Your task to perform on an android device: empty trash in the gmail app Image 0: 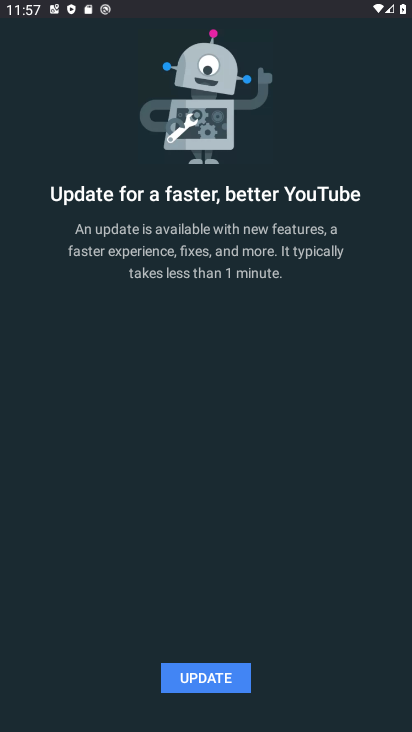
Step 0: press home button
Your task to perform on an android device: empty trash in the gmail app Image 1: 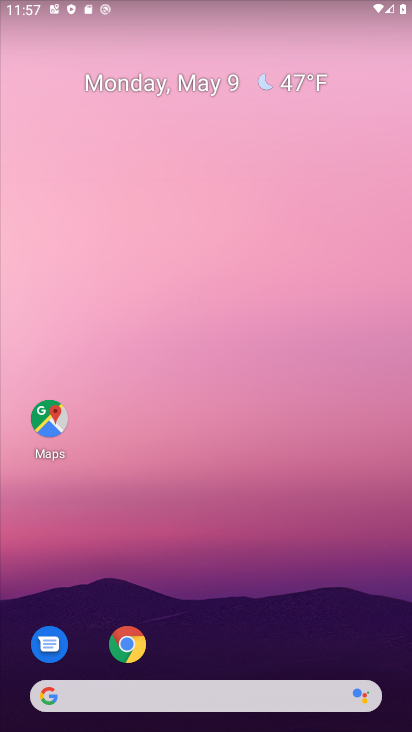
Step 1: drag from (42, 614) to (252, 216)
Your task to perform on an android device: empty trash in the gmail app Image 2: 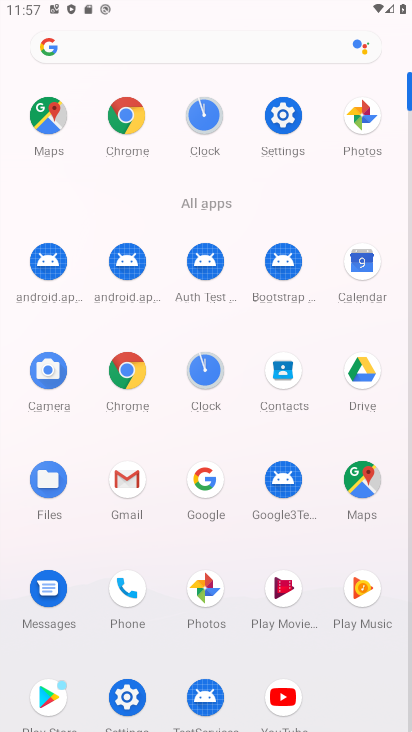
Step 2: click (151, 484)
Your task to perform on an android device: empty trash in the gmail app Image 3: 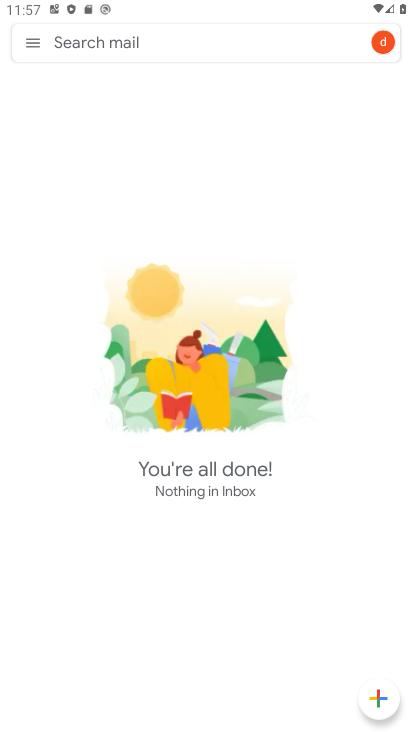
Step 3: click (43, 45)
Your task to perform on an android device: empty trash in the gmail app Image 4: 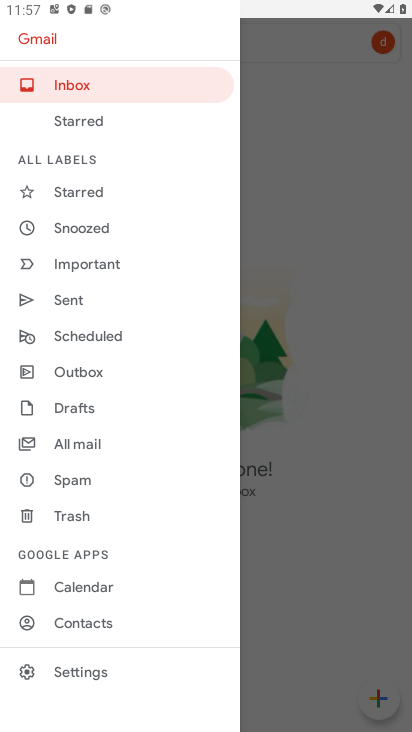
Step 4: click (69, 519)
Your task to perform on an android device: empty trash in the gmail app Image 5: 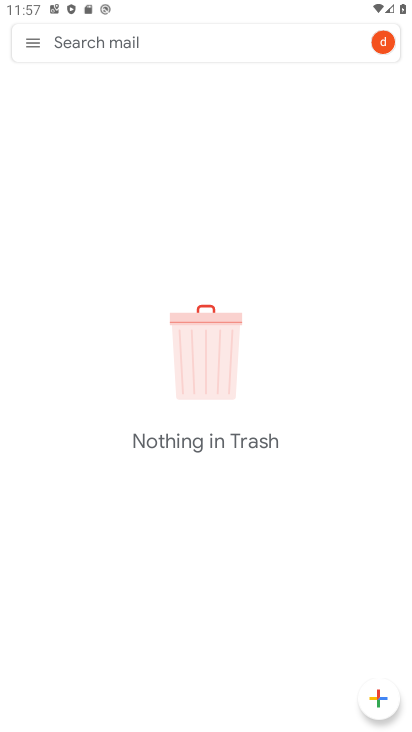
Step 5: task complete